Your task to perform on an android device: Open Youtube and go to the subscriptions tab Image 0: 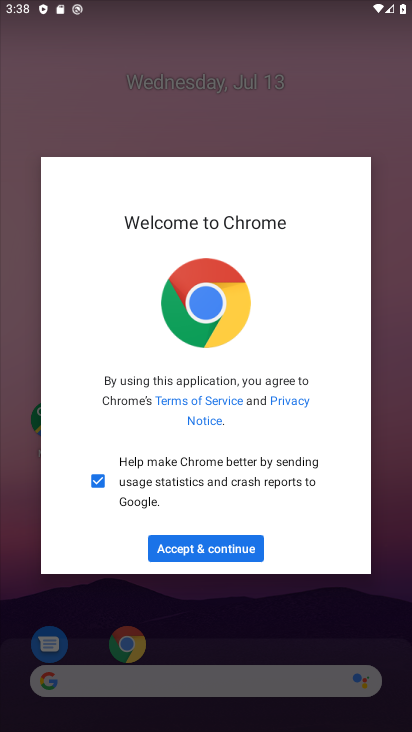
Step 0: press home button
Your task to perform on an android device: Open Youtube and go to the subscriptions tab Image 1: 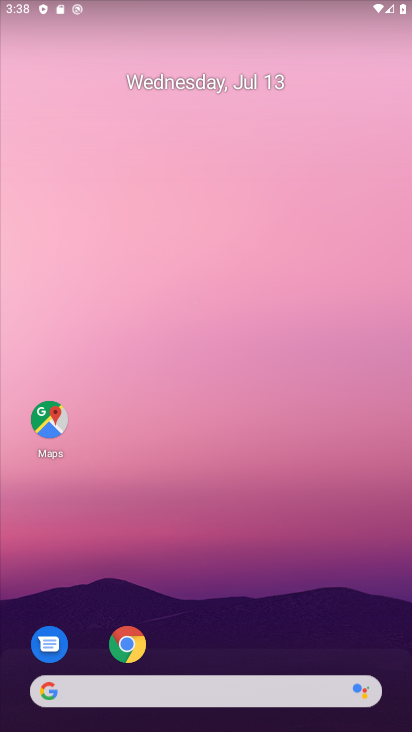
Step 1: drag from (330, 626) to (272, 50)
Your task to perform on an android device: Open Youtube and go to the subscriptions tab Image 2: 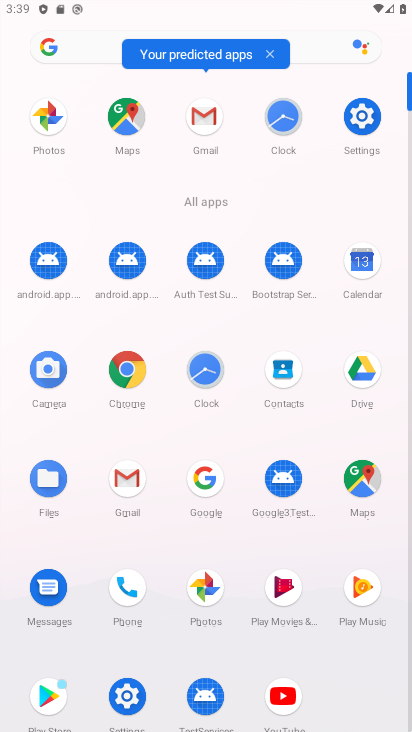
Step 2: click (289, 692)
Your task to perform on an android device: Open Youtube and go to the subscriptions tab Image 3: 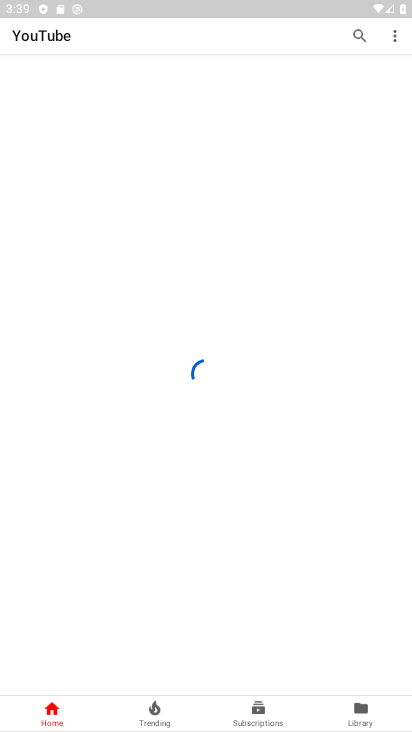
Step 3: click (266, 714)
Your task to perform on an android device: Open Youtube and go to the subscriptions tab Image 4: 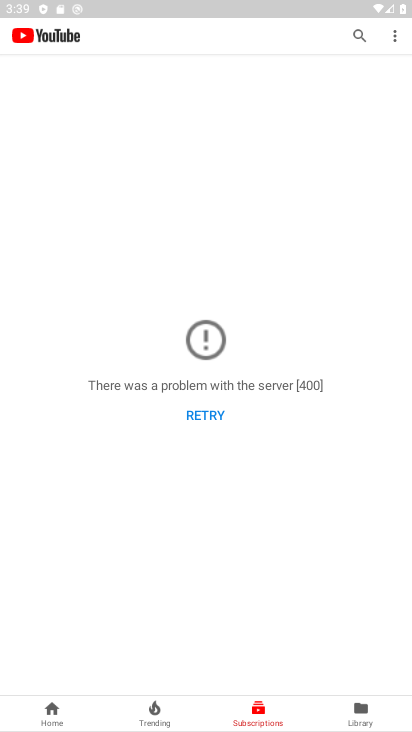
Step 4: task complete